Your task to perform on an android device: turn on sleep mode Image 0: 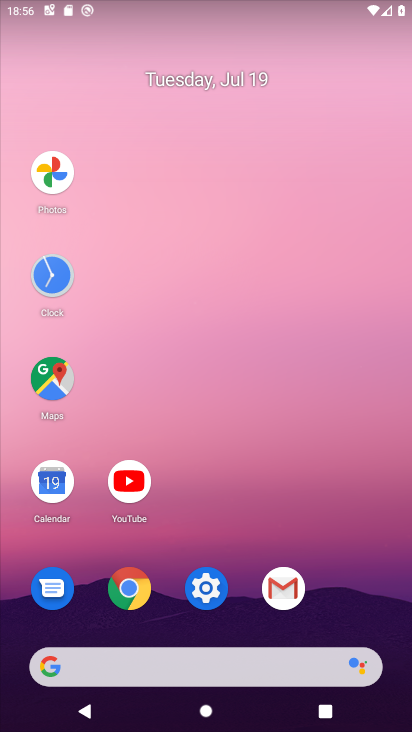
Step 0: click (207, 585)
Your task to perform on an android device: turn on sleep mode Image 1: 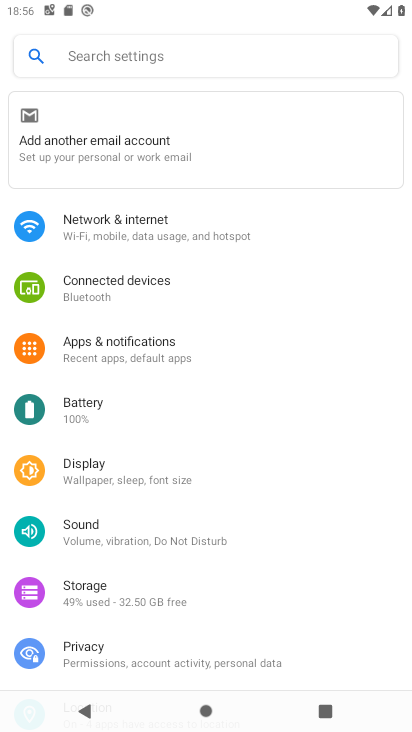
Step 1: click (90, 475)
Your task to perform on an android device: turn on sleep mode Image 2: 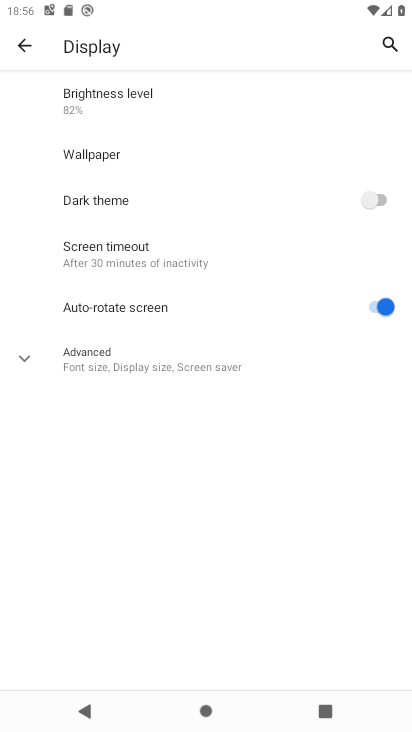
Step 2: task complete